Your task to perform on an android device: change keyboard looks Image 0: 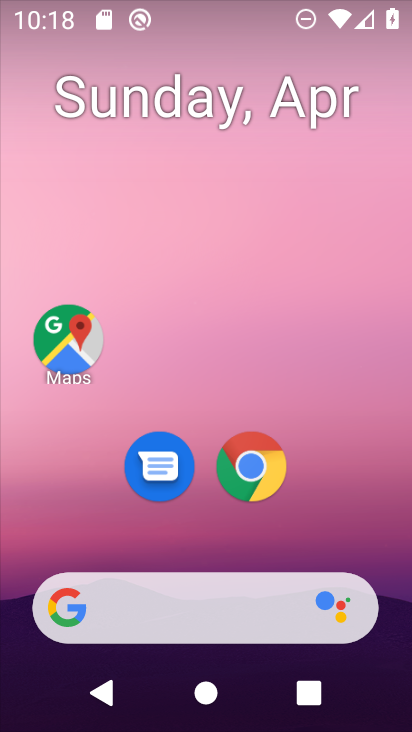
Step 0: drag from (369, 545) to (392, 82)
Your task to perform on an android device: change keyboard looks Image 1: 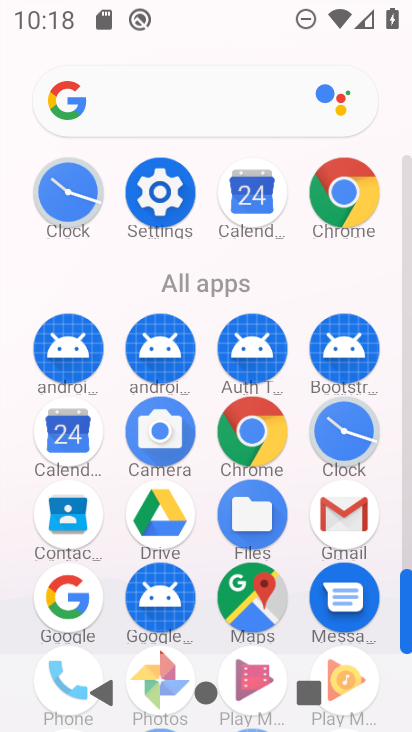
Step 1: click (167, 198)
Your task to perform on an android device: change keyboard looks Image 2: 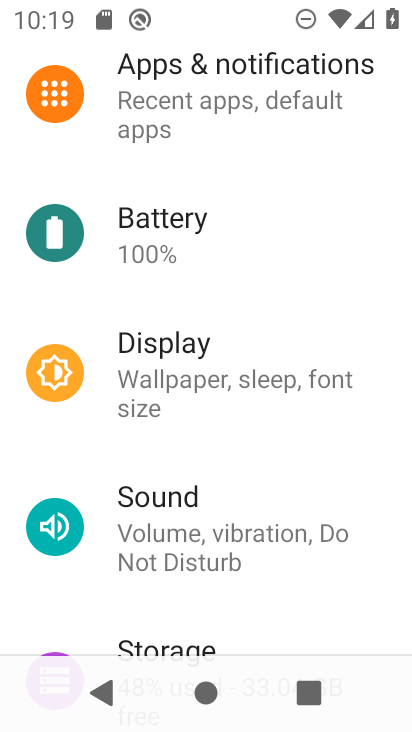
Step 2: drag from (314, 578) to (311, 371)
Your task to perform on an android device: change keyboard looks Image 3: 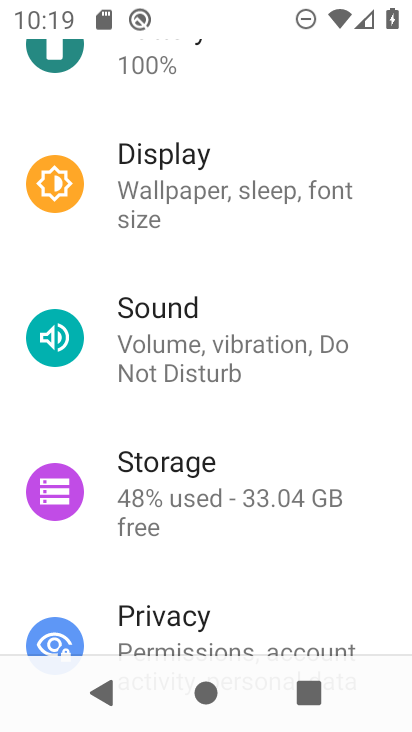
Step 3: drag from (376, 587) to (376, 353)
Your task to perform on an android device: change keyboard looks Image 4: 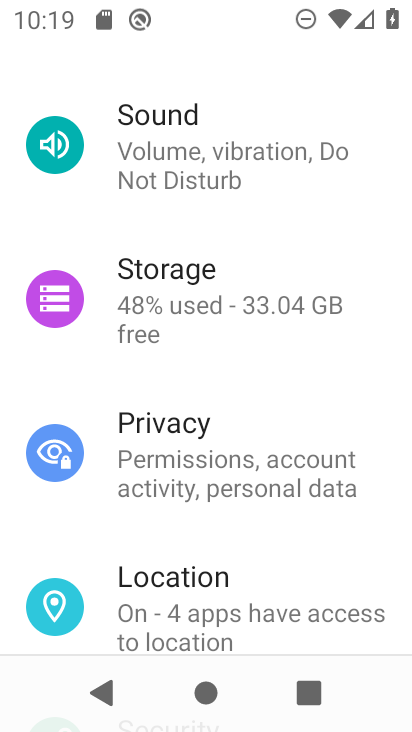
Step 4: drag from (374, 578) to (379, 359)
Your task to perform on an android device: change keyboard looks Image 5: 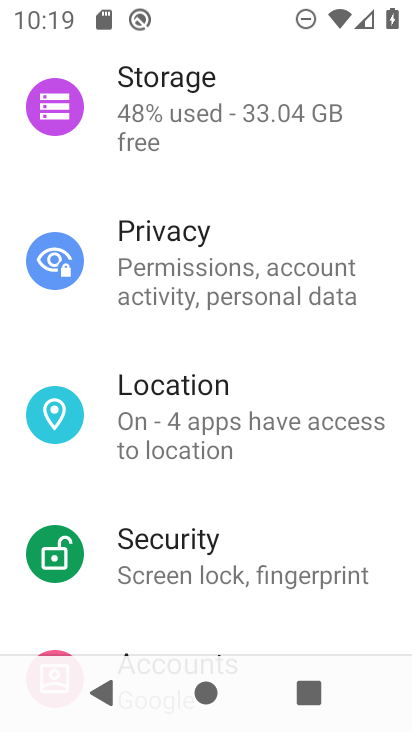
Step 5: drag from (369, 609) to (374, 328)
Your task to perform on an android device: change keyboard looks Image 6: 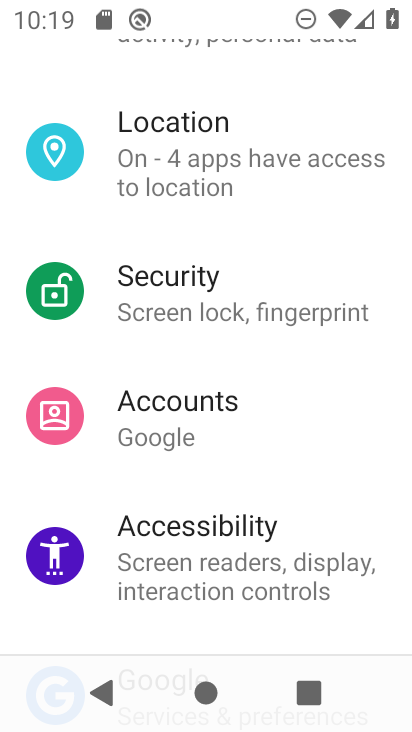
Step 6: drag from (328, 495) to (325, 306)
Your task to perform on an android device: change keyboard looks Image 7: 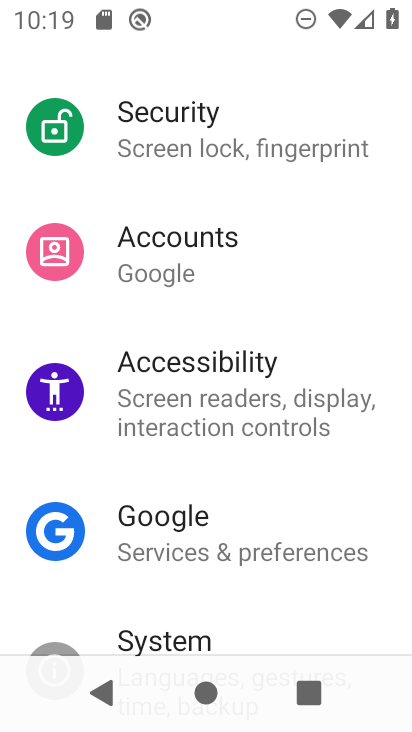
Step 7: drag from (325, 605) to (356, 289)
Your task to perform on an android device: change keyboard looks Image 8: 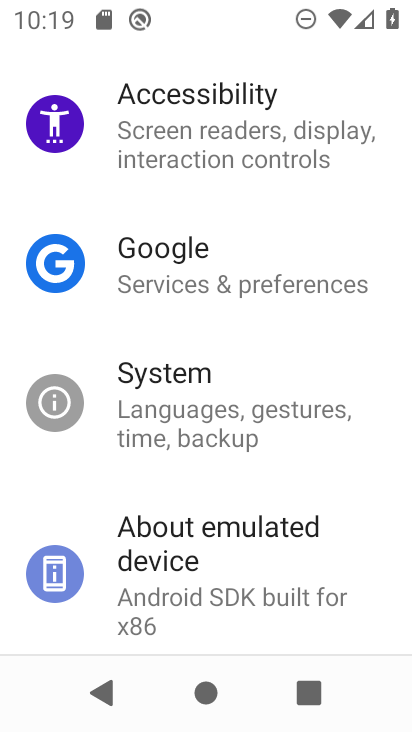
Step 8: drag from (361, 608) to (359, 405)
Your task to perform on an android device: change keyboard looks Image 9: 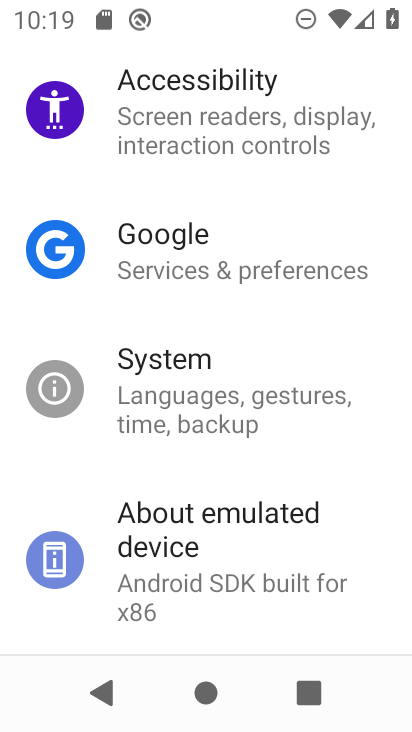
Step 9: click (213, 392)
Your task to perform on an android device: change keyboard looks Image 10: 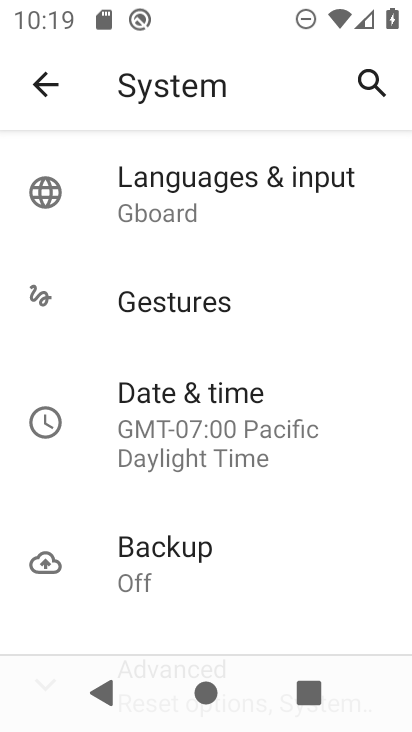
Step 10: drag from (337, 551) to (342, 379)
Your task to perform on an android device: change keyboard looks Image 11: 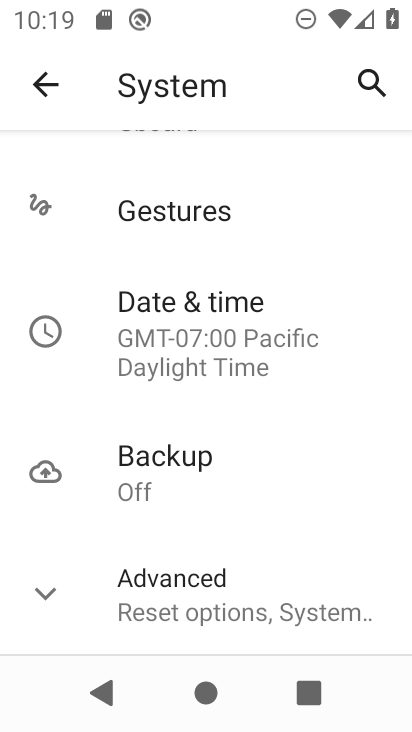
Step 11: drag from (319, 524) to (318, 379)
Your task to perform on an android device: change keyboard looks Image 12: 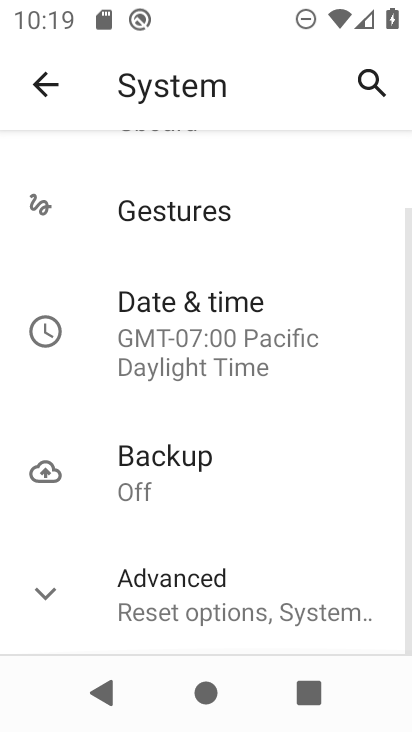
Step 12: drag from (327, 253) to (340, 509)
Your task to perform on an android device: change keyboard looks Image 13: 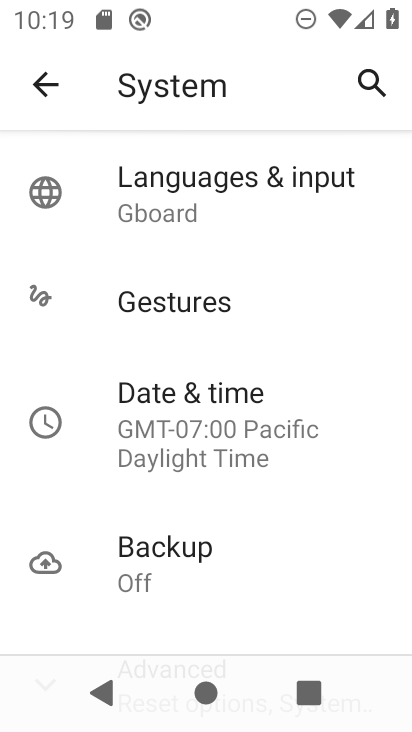
Step 13: click (199, 192)
Your task to perform on an android device: change keyboard looks Image 14: 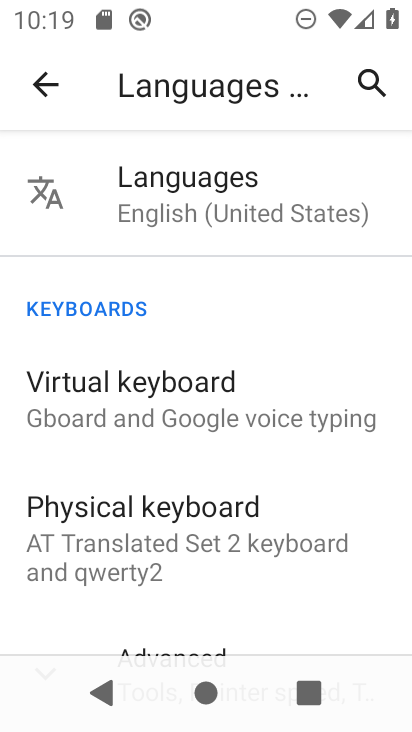
Step 14: click (154, 403)
Your task to perform on an android device: change keyboard looks Image 15: 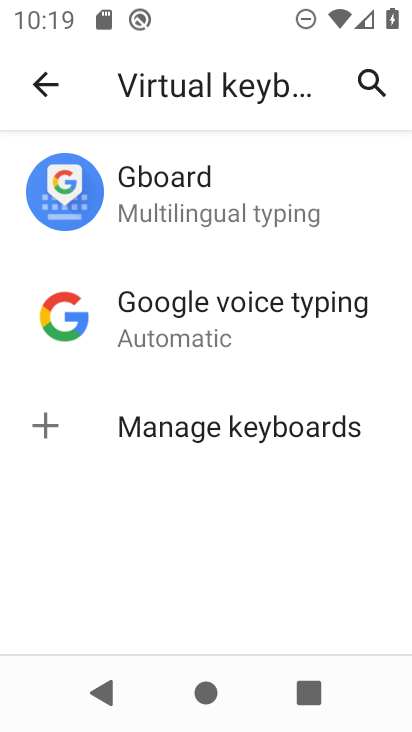
Step 15: click (192, 197)
Your task to perform on an android device: change keyboard looks Image 16: 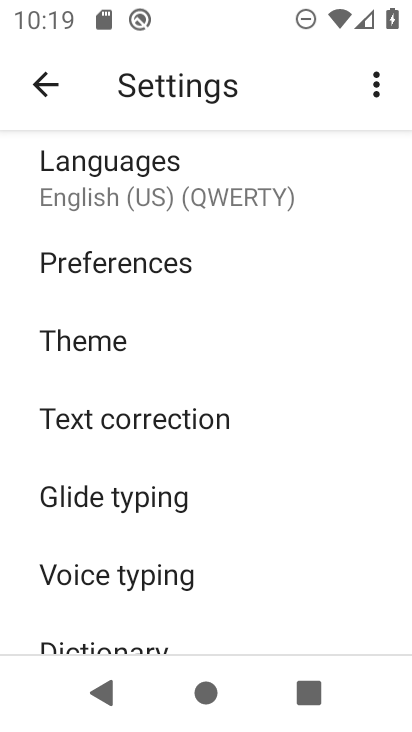
Step 16: drag from (313, 537) to (308, 378)
Your task to perform on an android device: change keyboard looks Image 17: 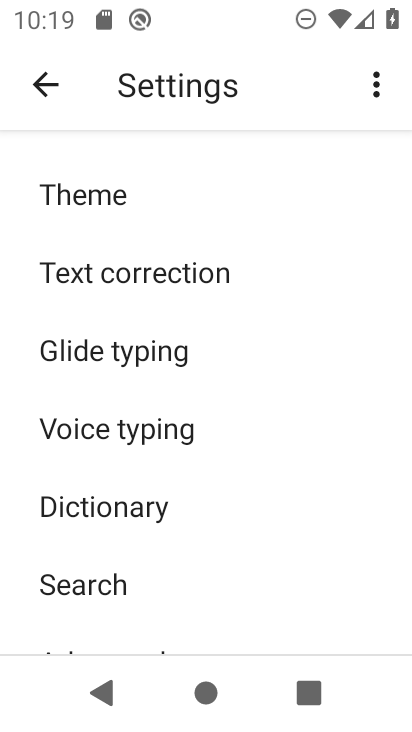
Step 17: click (88, 198)
Your task to perform on an android device: change keyboard looks Image 18: 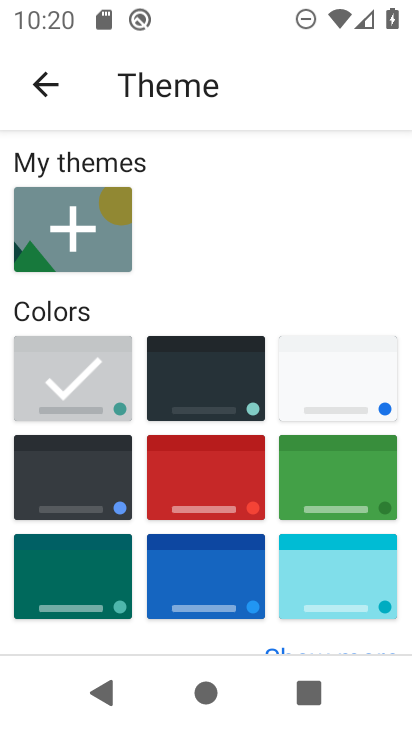
Step 18: click (215, 461)
Your task to perform on an android device: change keyboard looks Image 19: 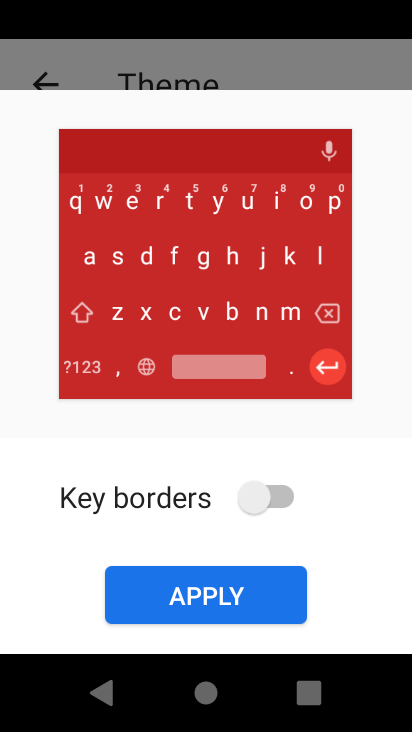
Step 19: click (245, 592)
Your task to perform on an android device: change keyboard looks Image 20: 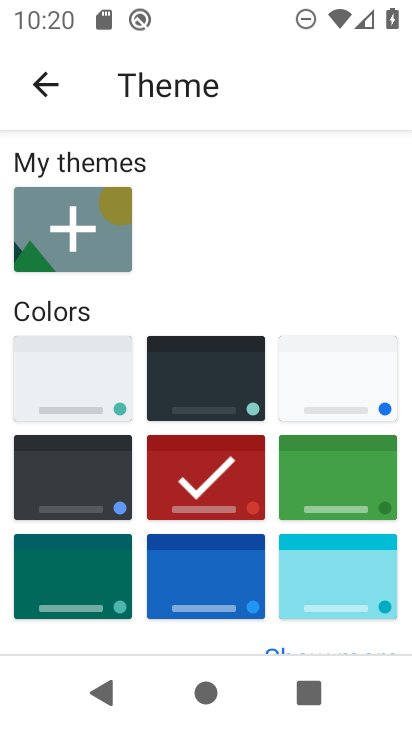
Step 20: task complete